Your task to perform on an android device: choose inbox layout in the gmail app Image 0: 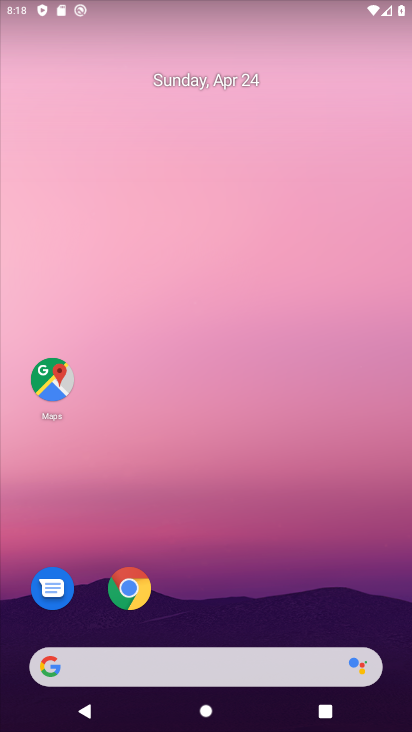
Step 0: drag from (247, 560) to (220, 30)
Your task to perform on an android device: choose inbox layout in the gmail app Image 1: 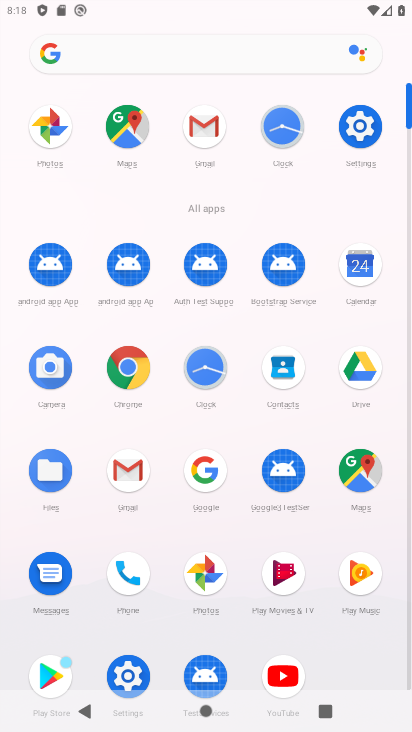
Step 1: click (204, 125)
Your task to perform on an android device: choose inbox layout in the gmail app Image 2: 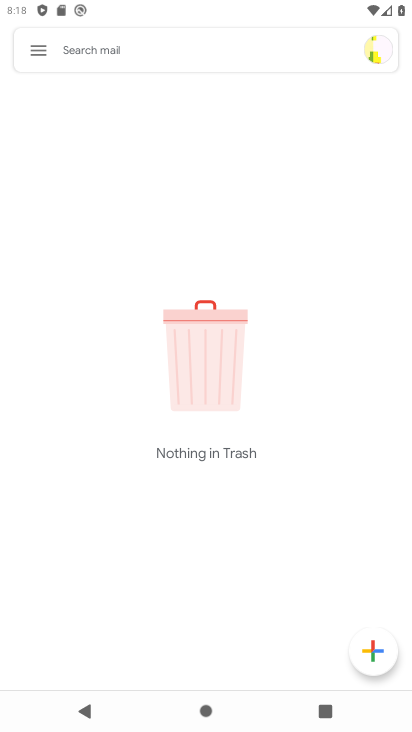
Step 2: click (36, 53)
Your task to perform on an android device: choose inbox layout in the gmail app Image 3: 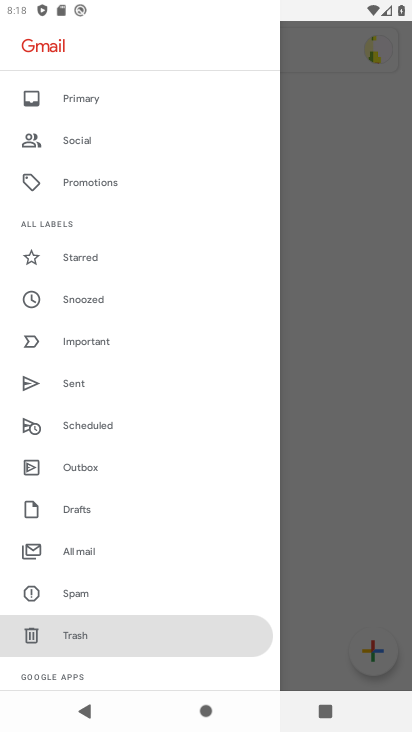
Step 3: drag from (138, 524) to (237, 312)
Your task to perform on an android device: choose inbox layout in the gmail app Image 4: 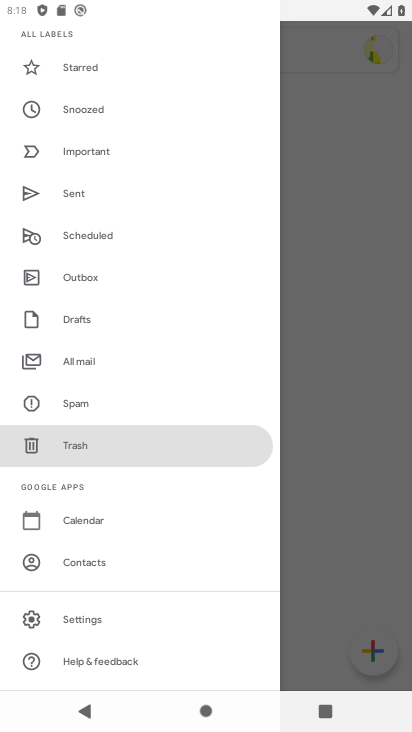
Step 4: click (87, 622)
Your task to perform on an android device: choose inbox layout in the gmail app Image 5: 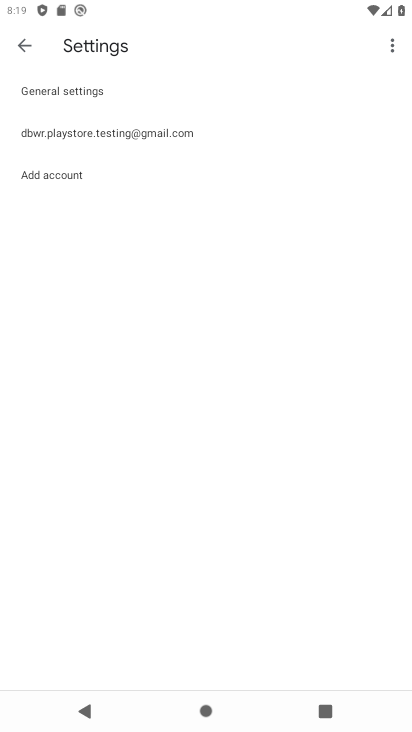
Step 5: click (185, 135)
Your task to perform on an android device: choose inbox layout in the gmail app Image 6: 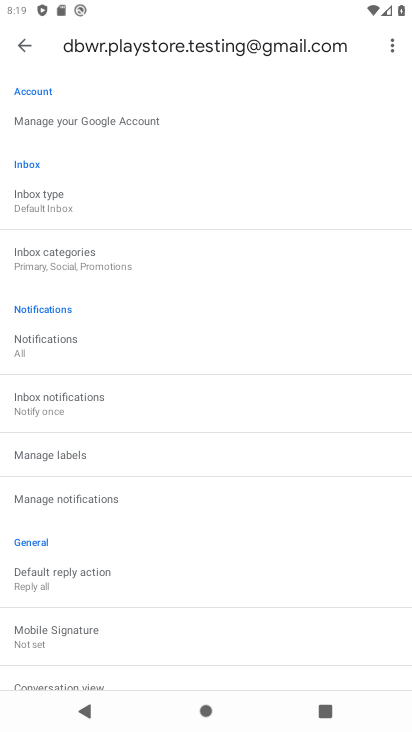
Step 6: click (57, 205)
Your task to perform on an android device: choose inbox layout in the gmail app Image 7: 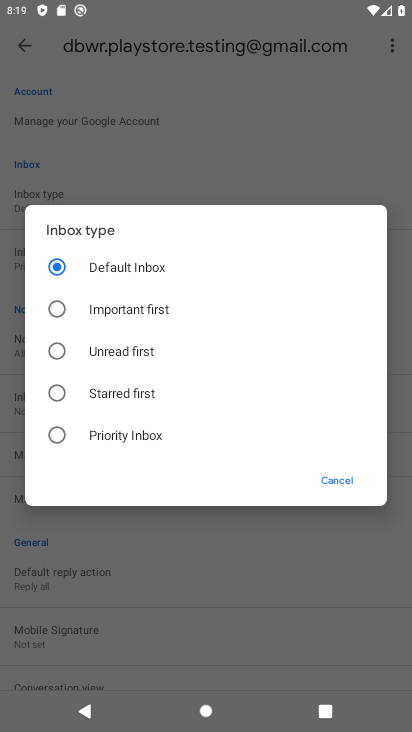
Step 7: click (57, 308)
Your task to perform on an android device: choose inbox layout in the gmail app Image 8: 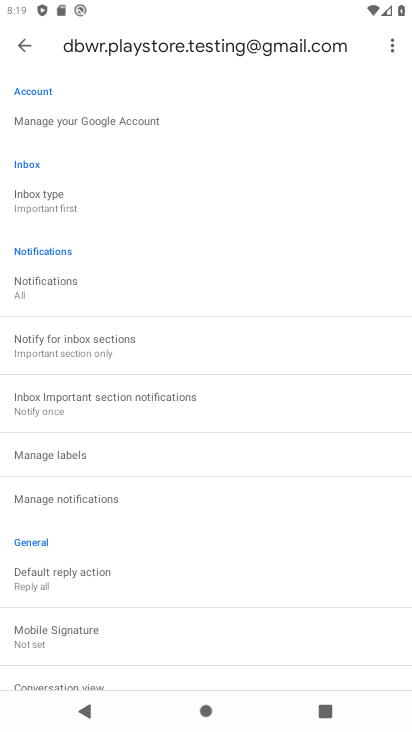
Step 8: task complete